Your task to perform on an android device: Open Google Chrome Image 0: 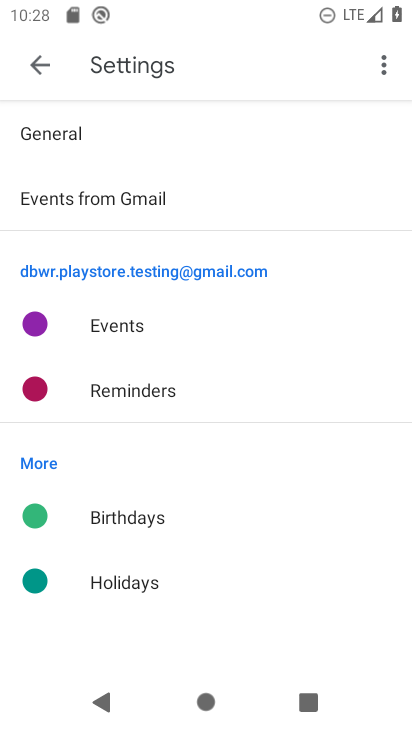
Step 0: press home button
Your task to perform on an android device: Open Google Chrome Image 1: 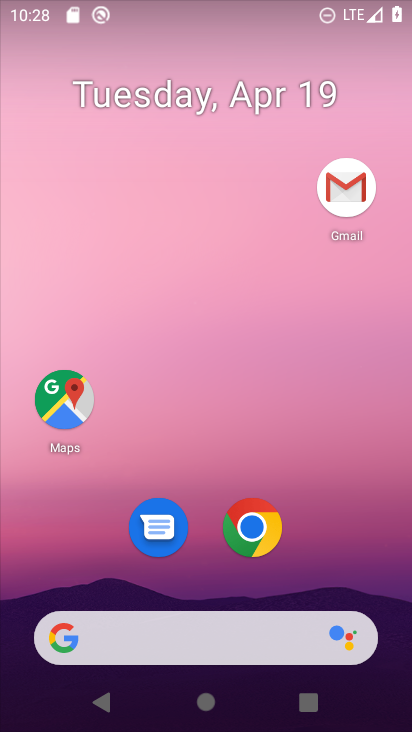
Step 1: click (268, 533)
Your task to perform on an android device: Open Google Chrome Image 2: 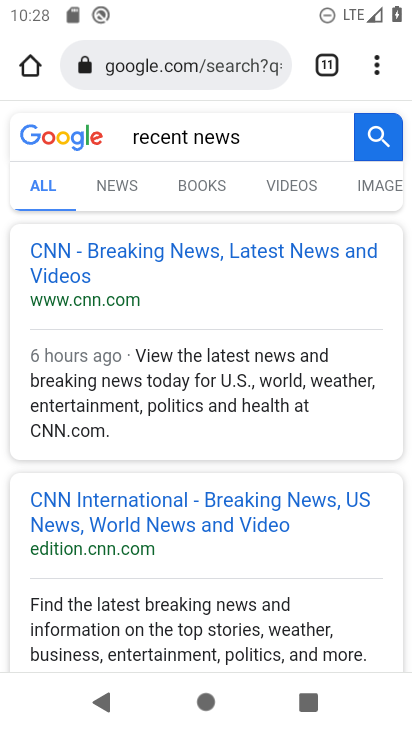
Step 2: task complete